Your task to perform on an android device: Open Yahoo.com Image 0: 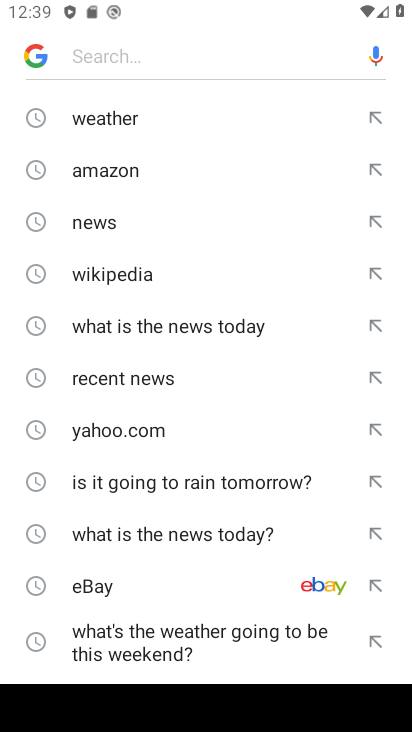
Step 0: press home button
Your task to perform on an android device: Open Yahoo.com Image 1: 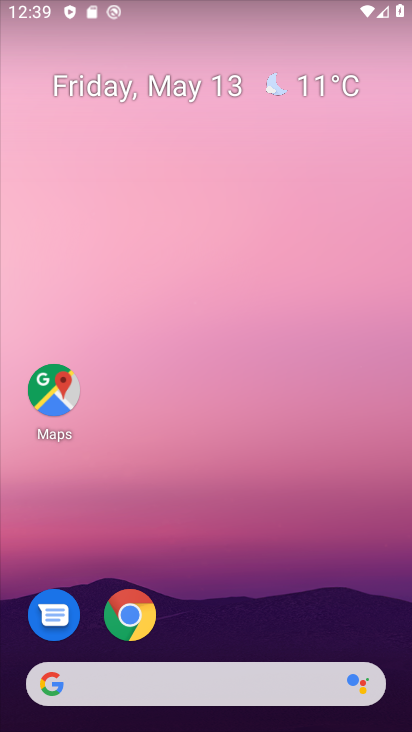
Step 1: click (133, 604)
Your task to perform on an android device: Open Yahoo.com Image 2: 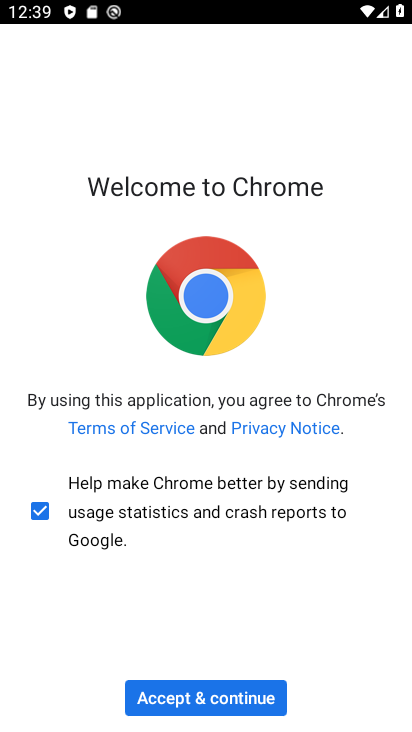
Step 2: click (211, 693)
Your task to perform on an android device: Open Yahoo.com Image 3: 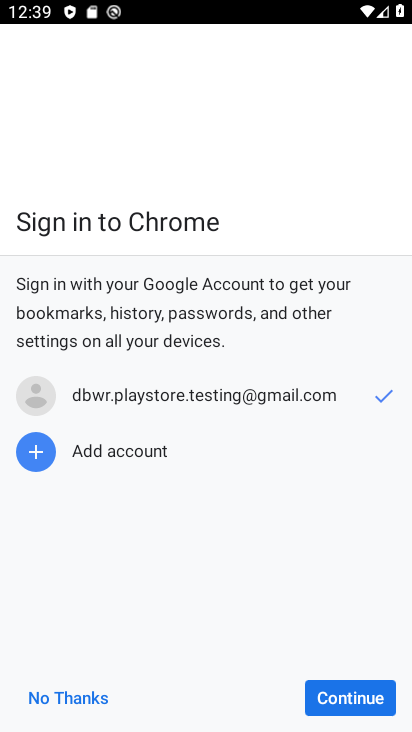
Step 3: click (370, 694)
Your task to perform on an android device: Open Yahoo.com Image 4: 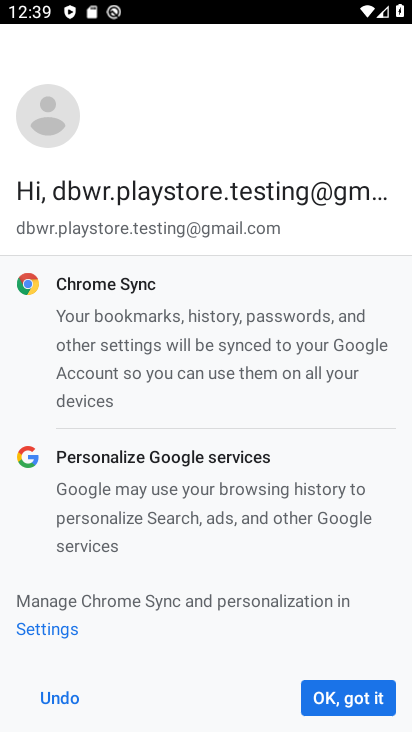
Step 4: click (341, 707)
Your task to perform on an android device: Open Yahoo.com Image 5: 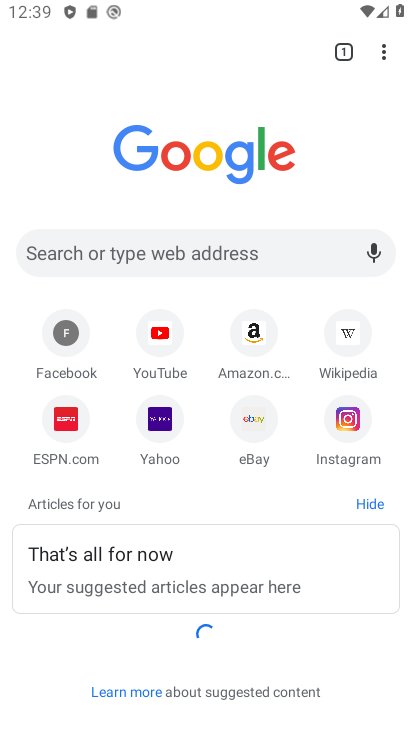
Step 5: click (156, 433)
Your task to perform on an android device: Open Yahoo.com Image 6: 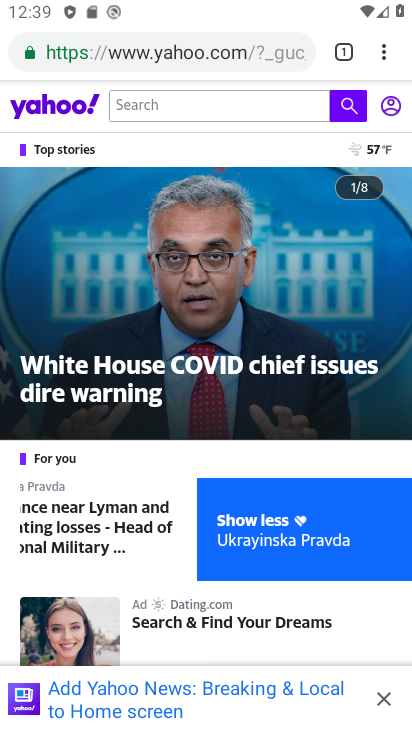
Step 6: task complete